Your task to perform on an android device: Show the shopping cart on bestbuy. Add razer blade to the cart on bestbuy, then select checkout. Image 0: 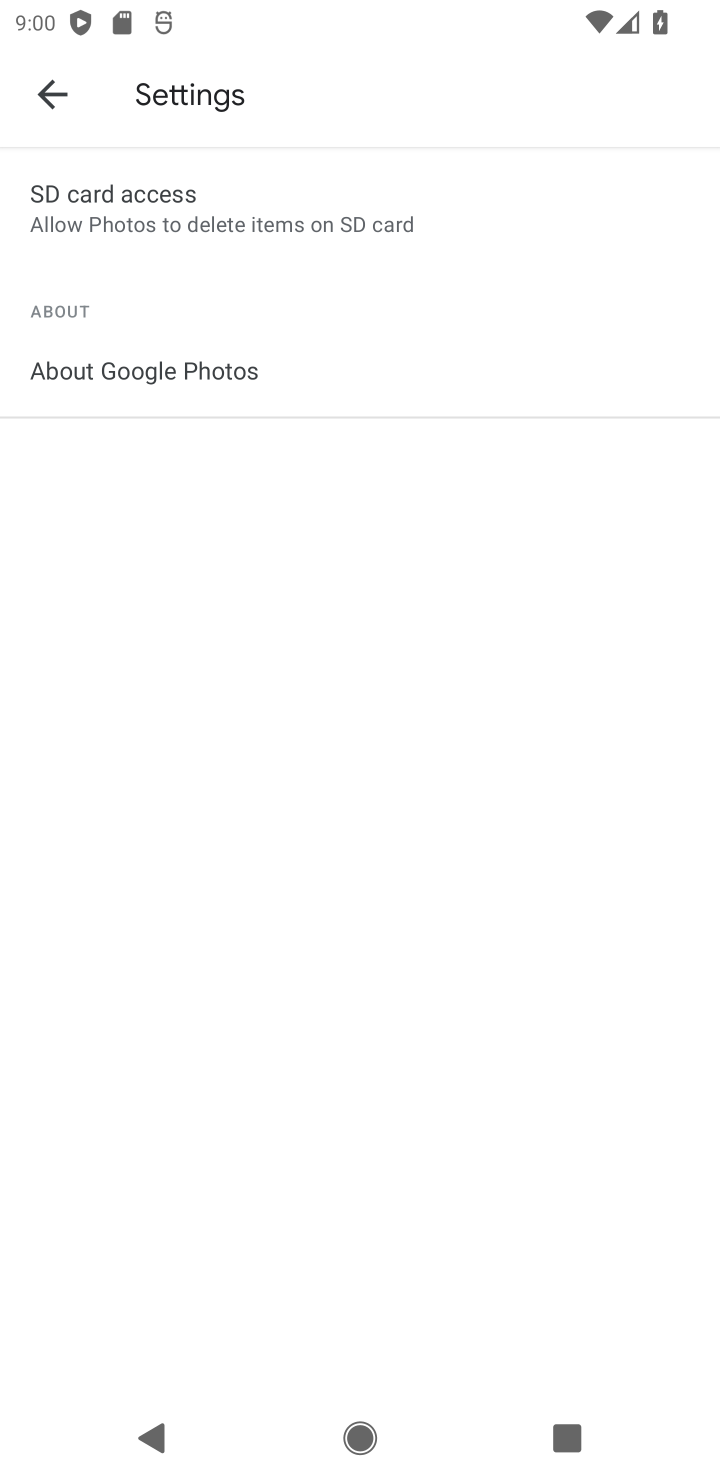
Step 0: press home button
Your task to perform on an android device: Show the shopping cart on bestbuy. Add razer blade to the cart on bestbuy, then select checkout. Image 1: 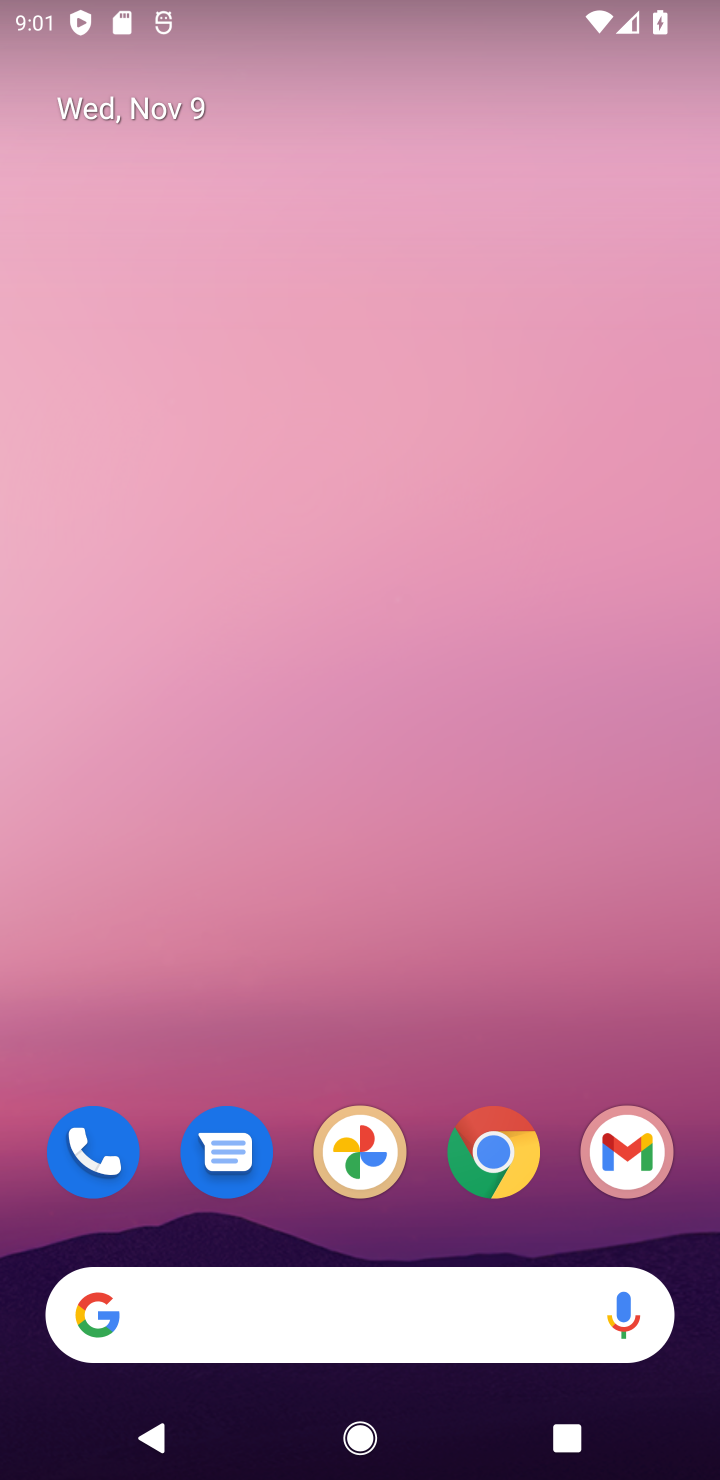
Step 1: click (495, 1151)
Your task to perform on an android device: Show the shopping cart on bestbuy. Add razer blade to the cart on bestbuy, then select checkout. Image 2: 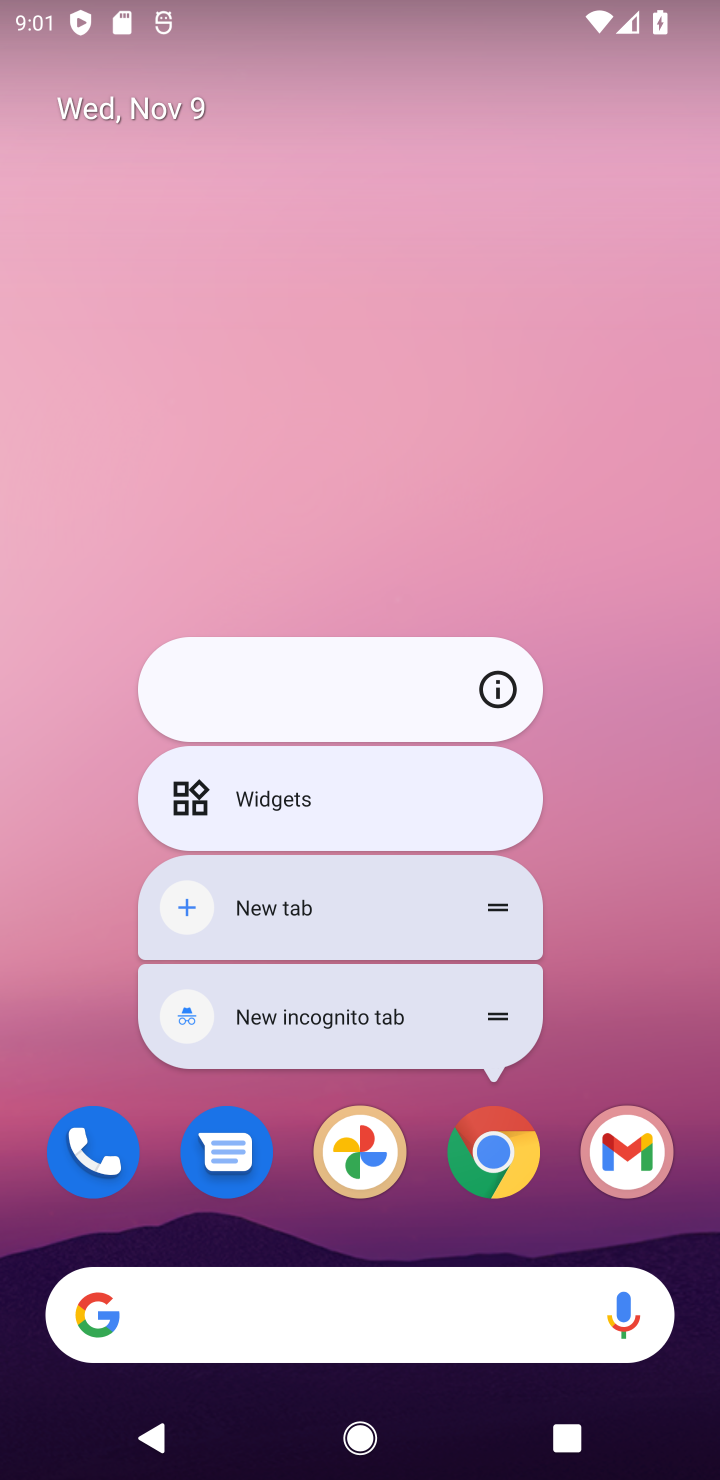
Step 2: click (495, 1156)
Your task to perform on an android device: Show the shopping cart on bestbuy. Add razer blade to the cart on bestbuy, then select checkout. Image 3: 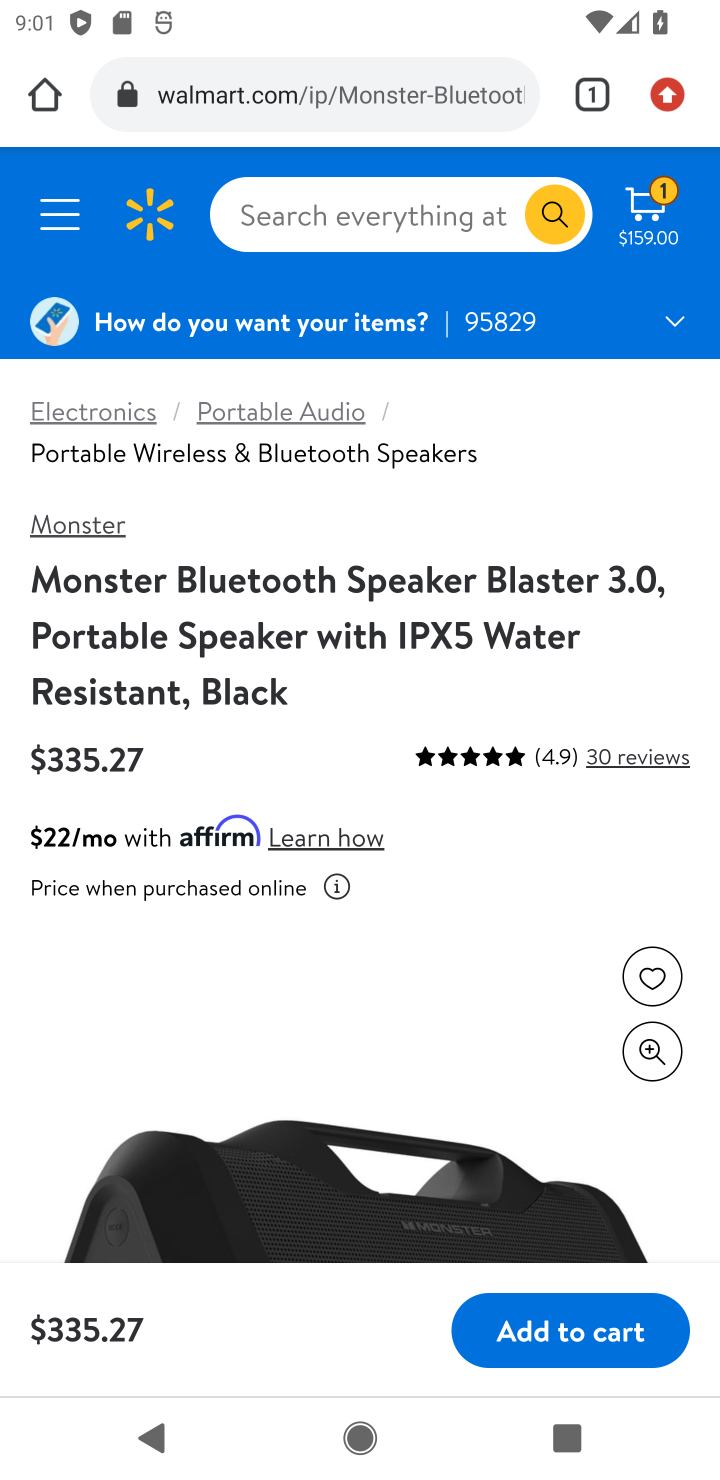
Step 3: click (422, 88)
Your task to perform on an android device: Show the shopping cart on bestbuy. Add razer blade to the cart on bestbuy, then select checkout. Image 4: 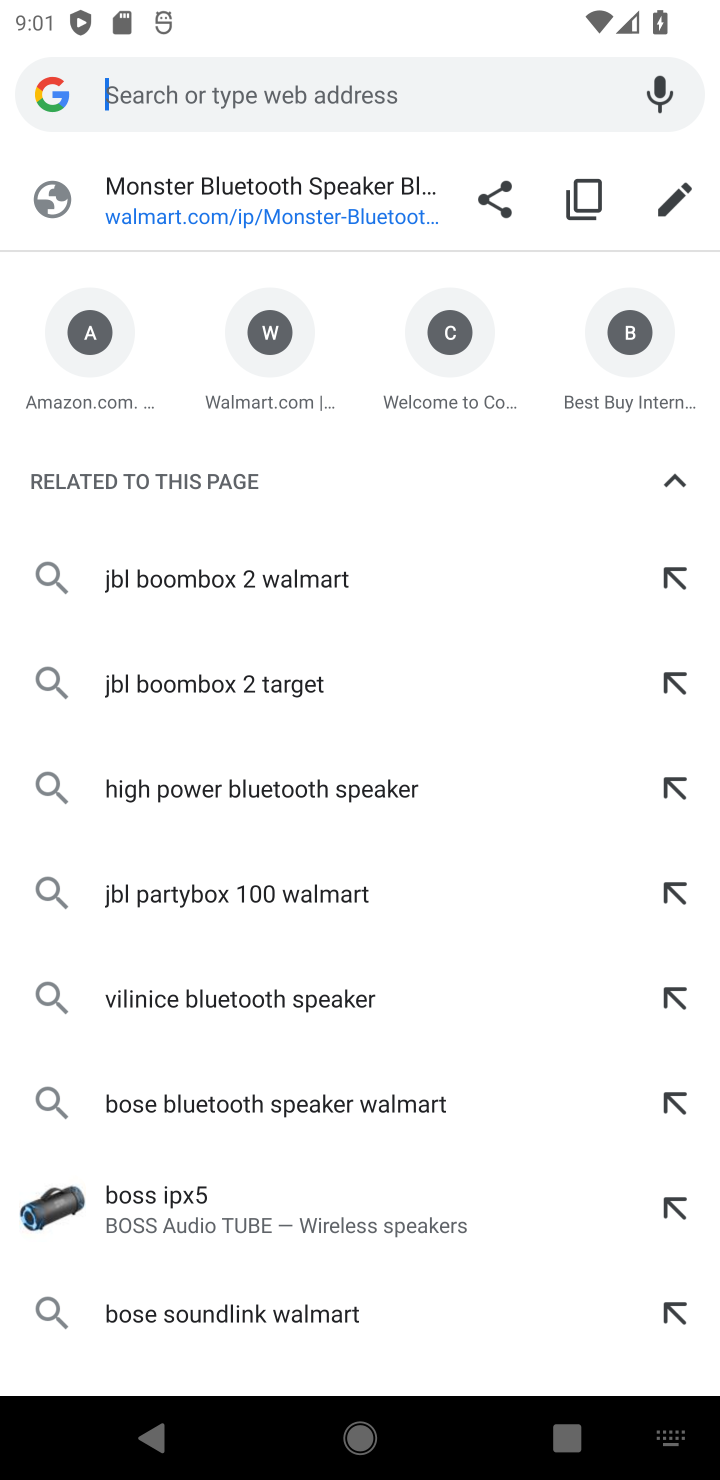
Step 4: click (615, 406)
Your task to perform on an android device: Show the shopping cart on bestbuy. Add razer blade to the cart on bestbuy, then select checkout. Image 5: 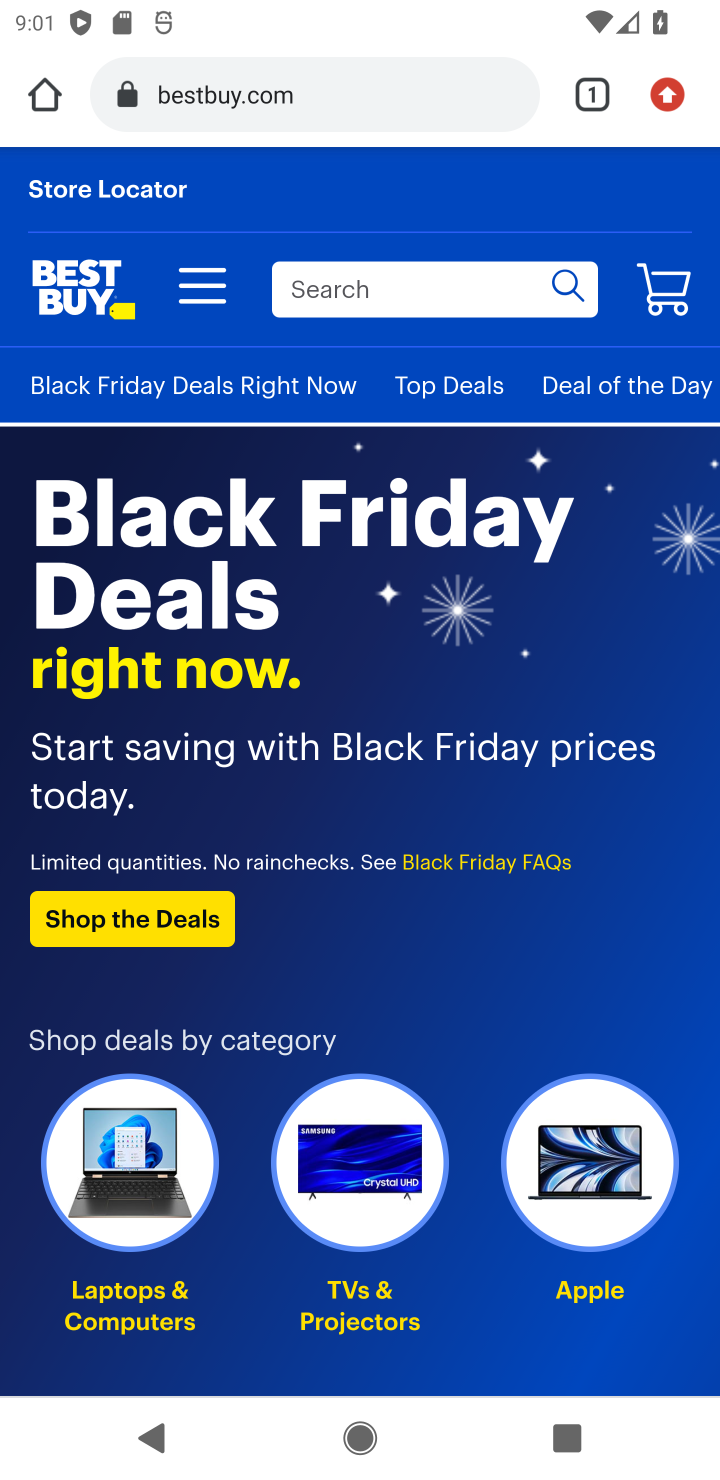
Step 5: click (488, 288)
Your task to perform on an android device: Show the shopping cart on bestbuy. Add razer blade to the cart on bestbuy, then select checkout. Image 6: 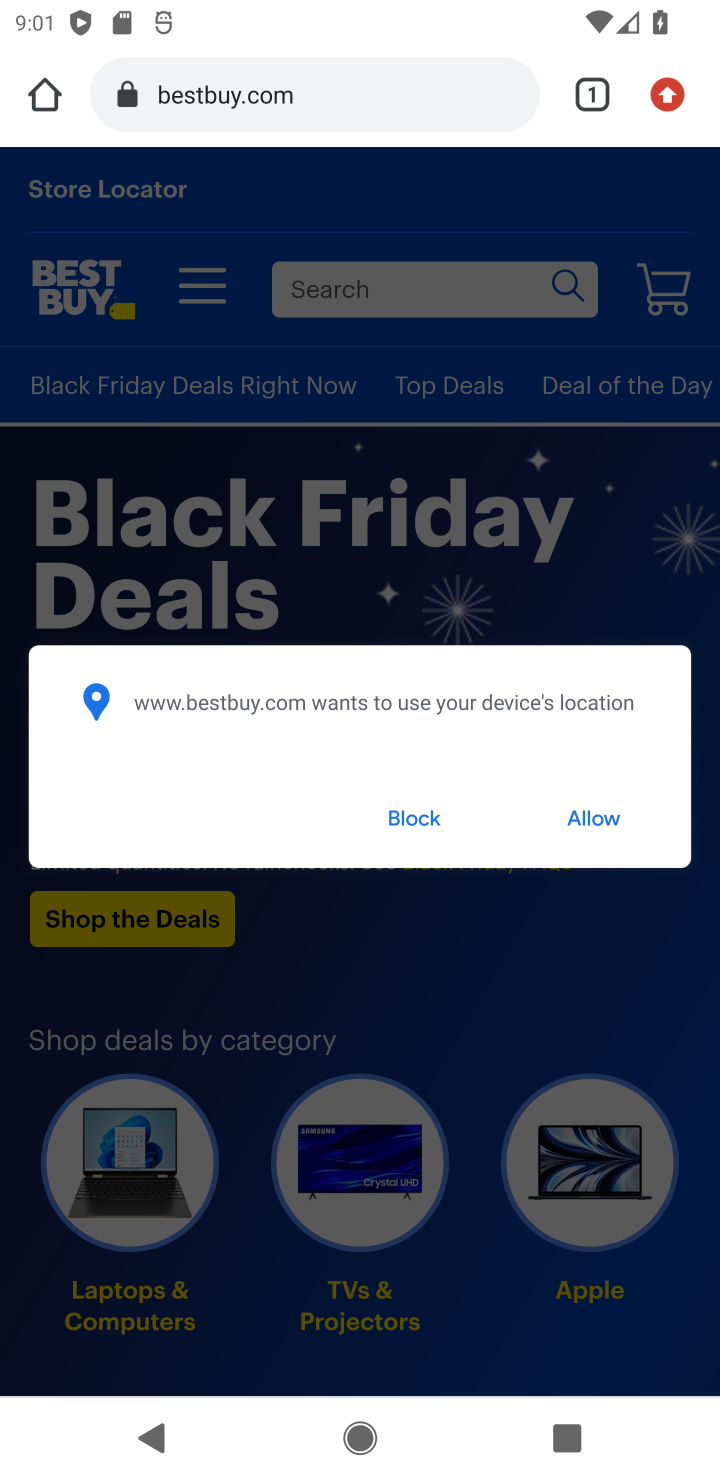
Step 6: click (600, 807)
Your task to perform on an android device: Show the shopping cart on bestbuy. Add razer blade to the cart on bestbuy, then select checkout. Image 7: 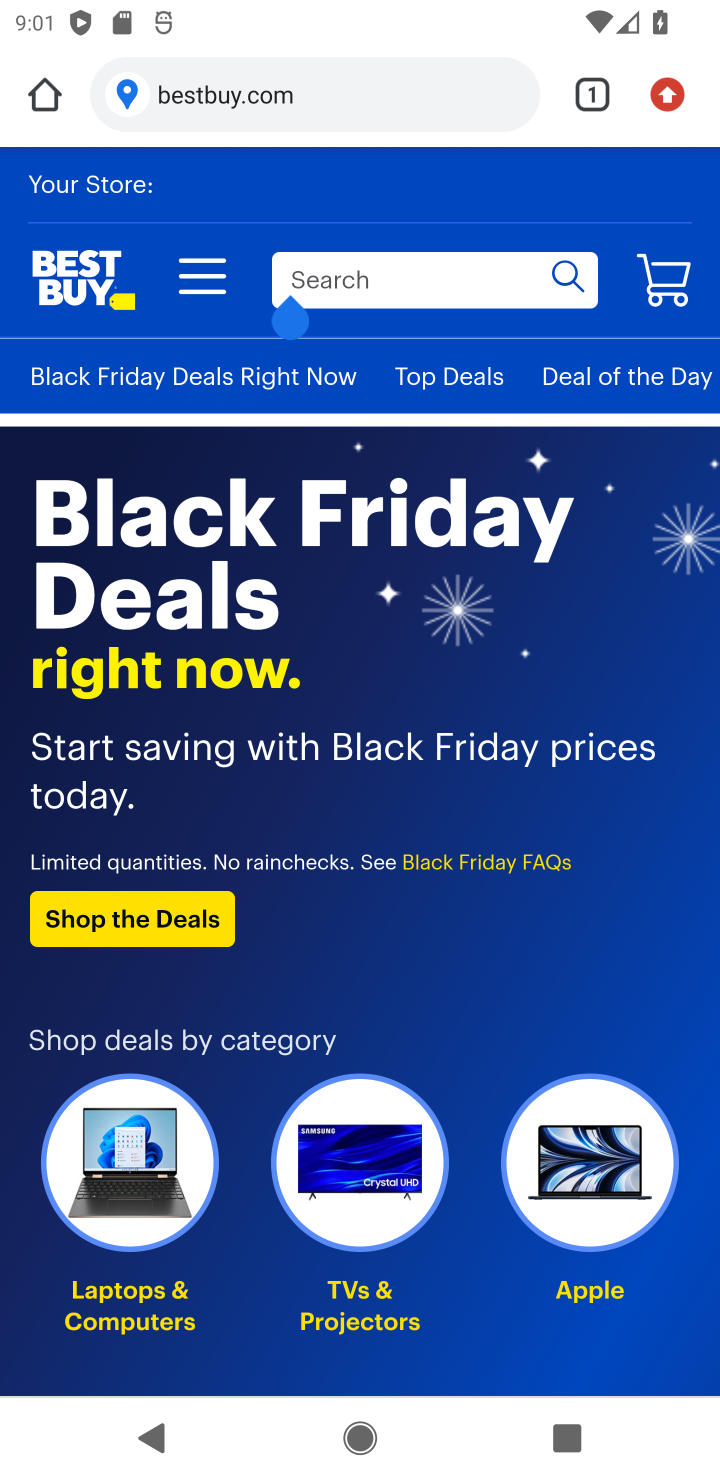
Step 7: click (480, 271)
Your task to perform on an android device: Show the shopping cart on bestbuy. Add razer blade to the cart on bestbuy, then select checkout. Image 8: 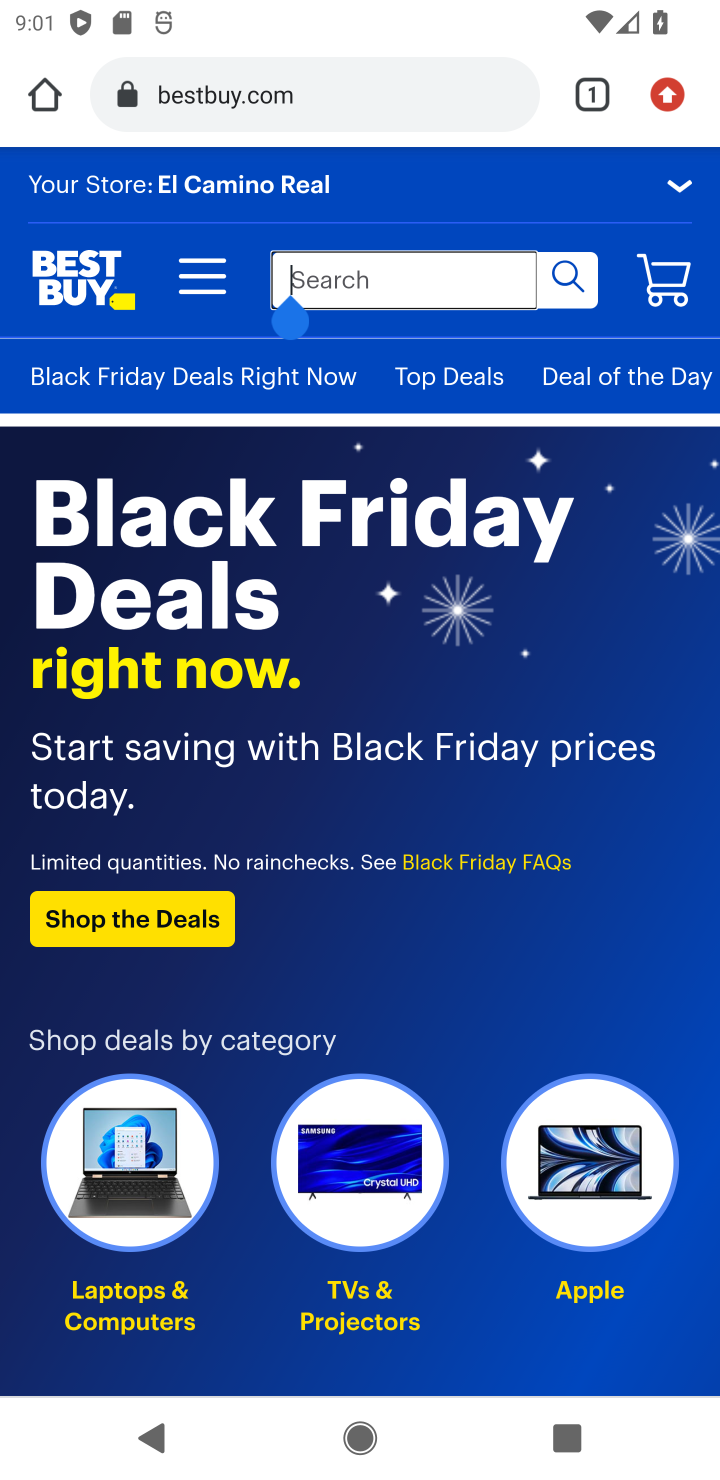
Step 8: type " razer blade"
Your task to perform on an android device: Show the shopping cart on bestbuy. Add razer blade to the cart on bestbuy, then select checkout. Image 9: 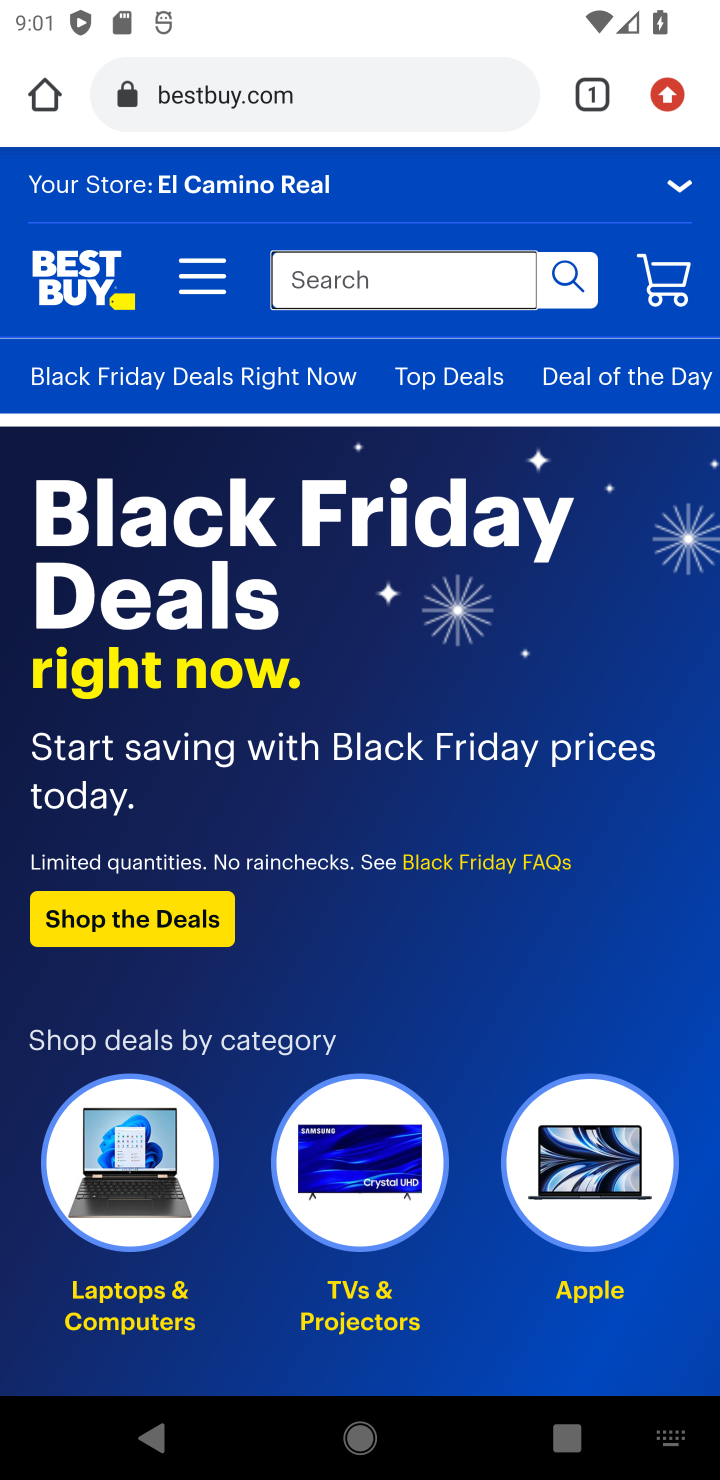
Step 9: press enter
Your task to perform on an android device: Show the shopping cart on bestbuy. Add razer blade to the cart on bestbuy, then select checkout. Image 10: 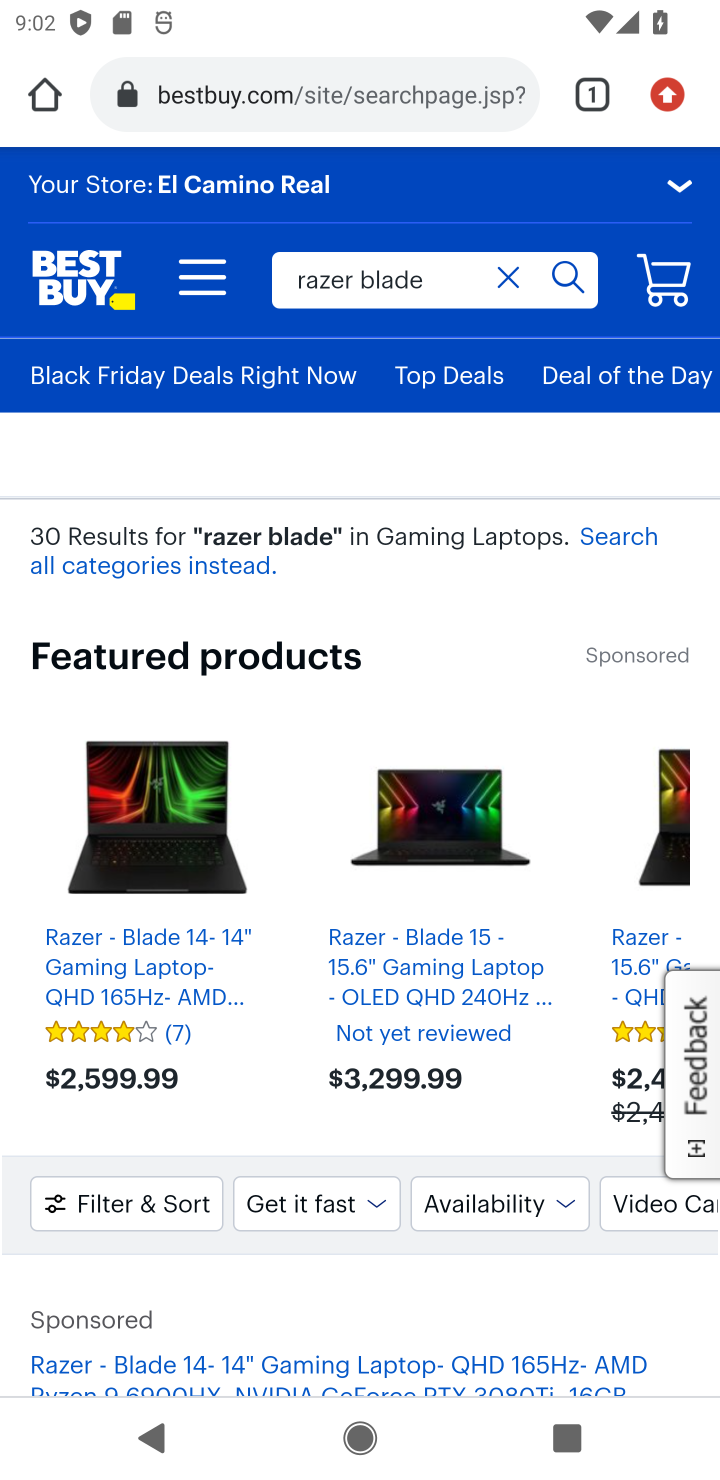
Step 10: drag from (318, 1188) to (565, 338)
Your task to perform on an android device: Show the shopping cart on bestbuy. Add razer blade to the cart on bestbuy, then select checkout. Image 11: 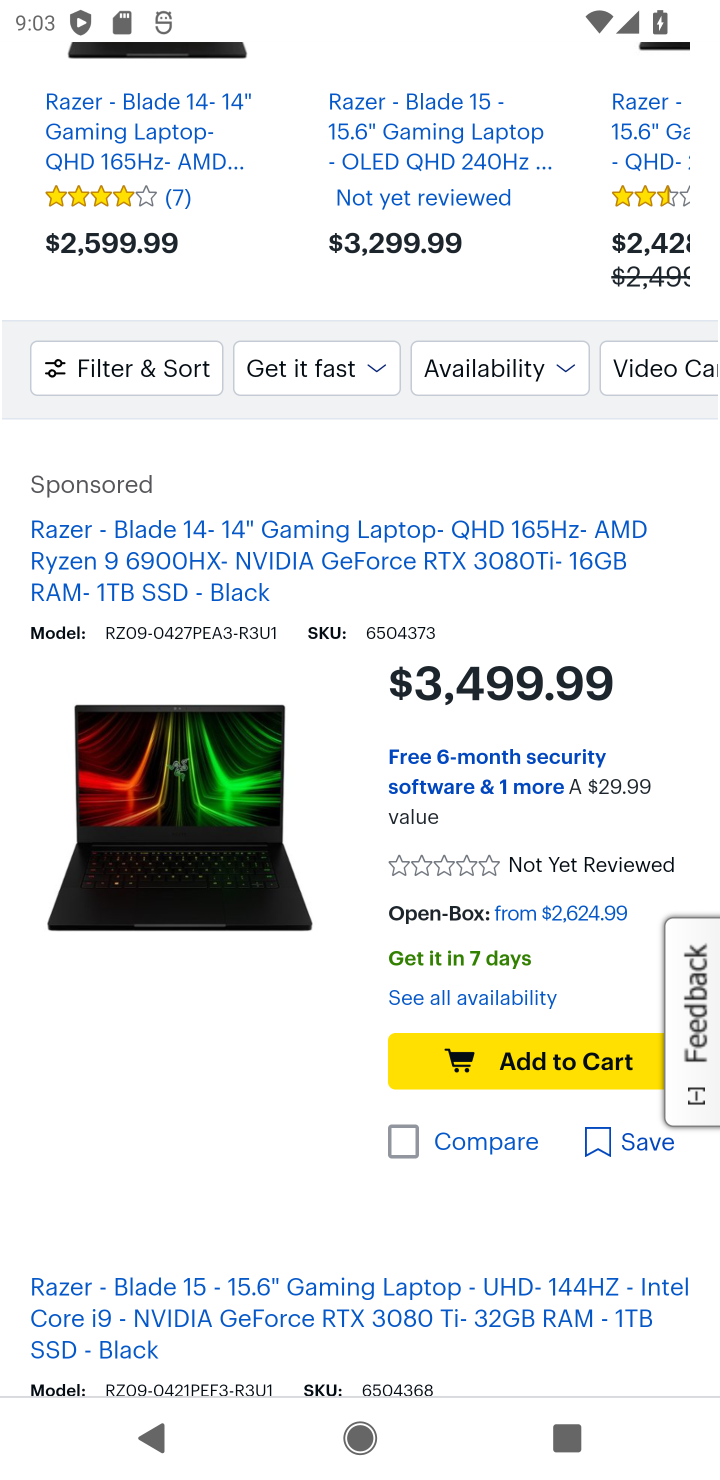
Step 11: click (544, 1055)
Your task to perform on an android device: Show the shopping cart on bestbuy. Add razer blade to the cart on bestbuy, then select checkout. Image 12: 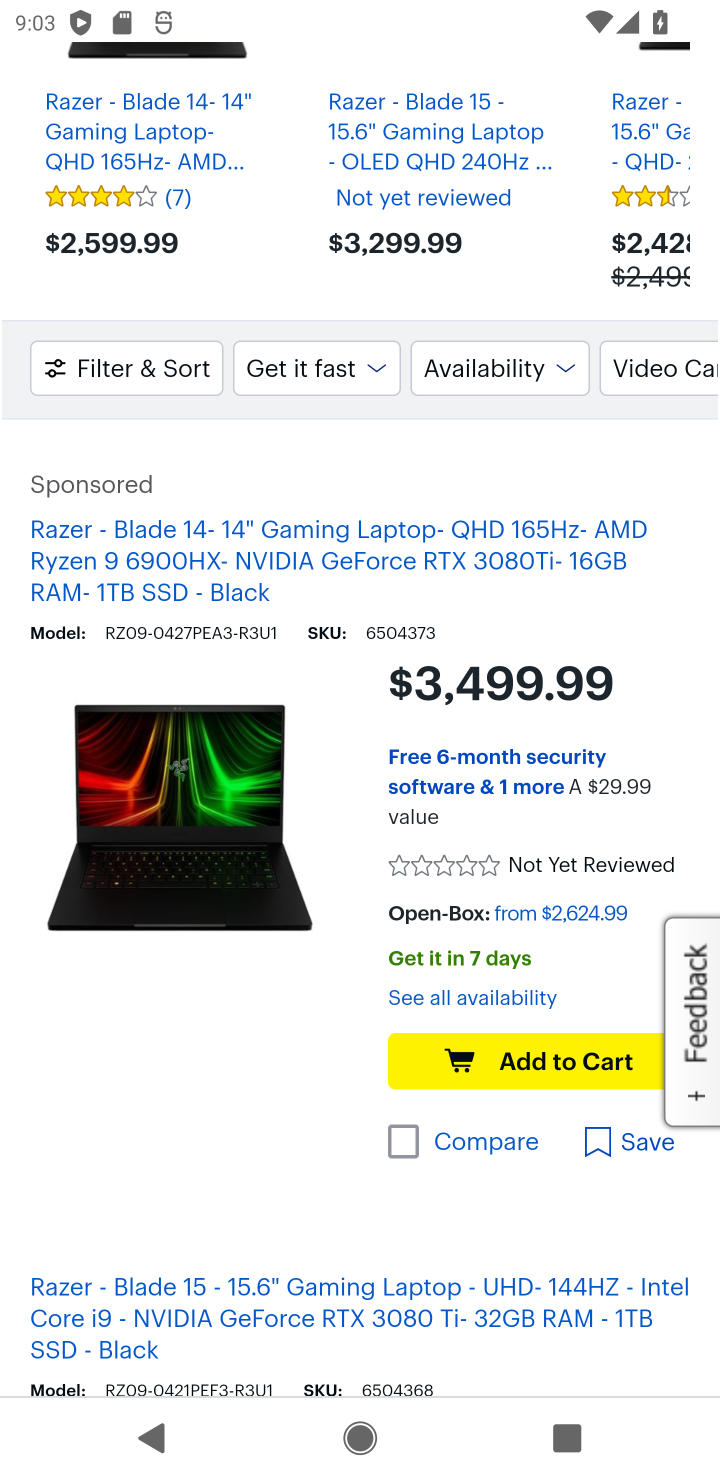
Step 12: click (549, 1066)
Your task to perform on an android device: Show the shopping cart on bestbuy. Add razer blade to the cart on bestbuy, then select checkout. Image 13: 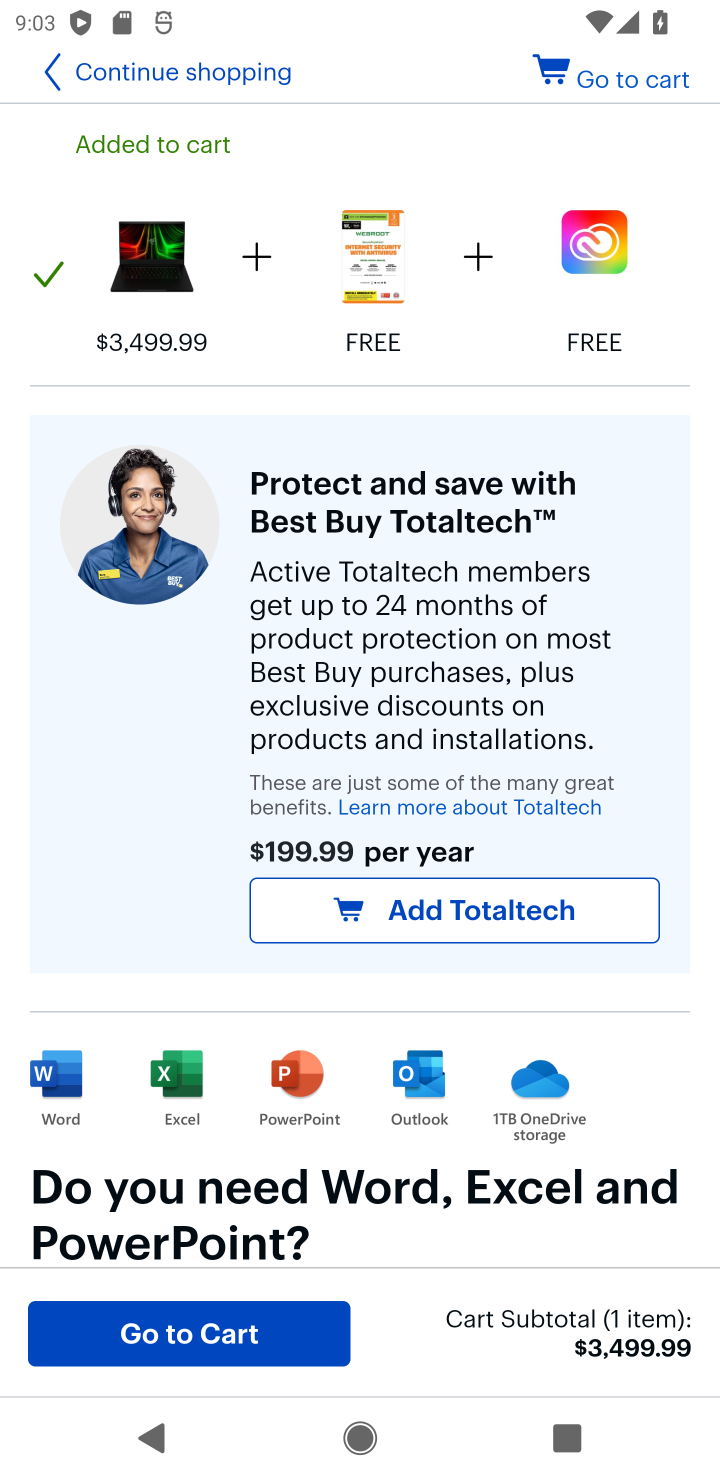
Step 13: click (651, 66)
Your task to perform on an android device: Show the shopping cart on bestbuy. Add razer blade to the cart on bestbuy, then select checkout. Image 14: 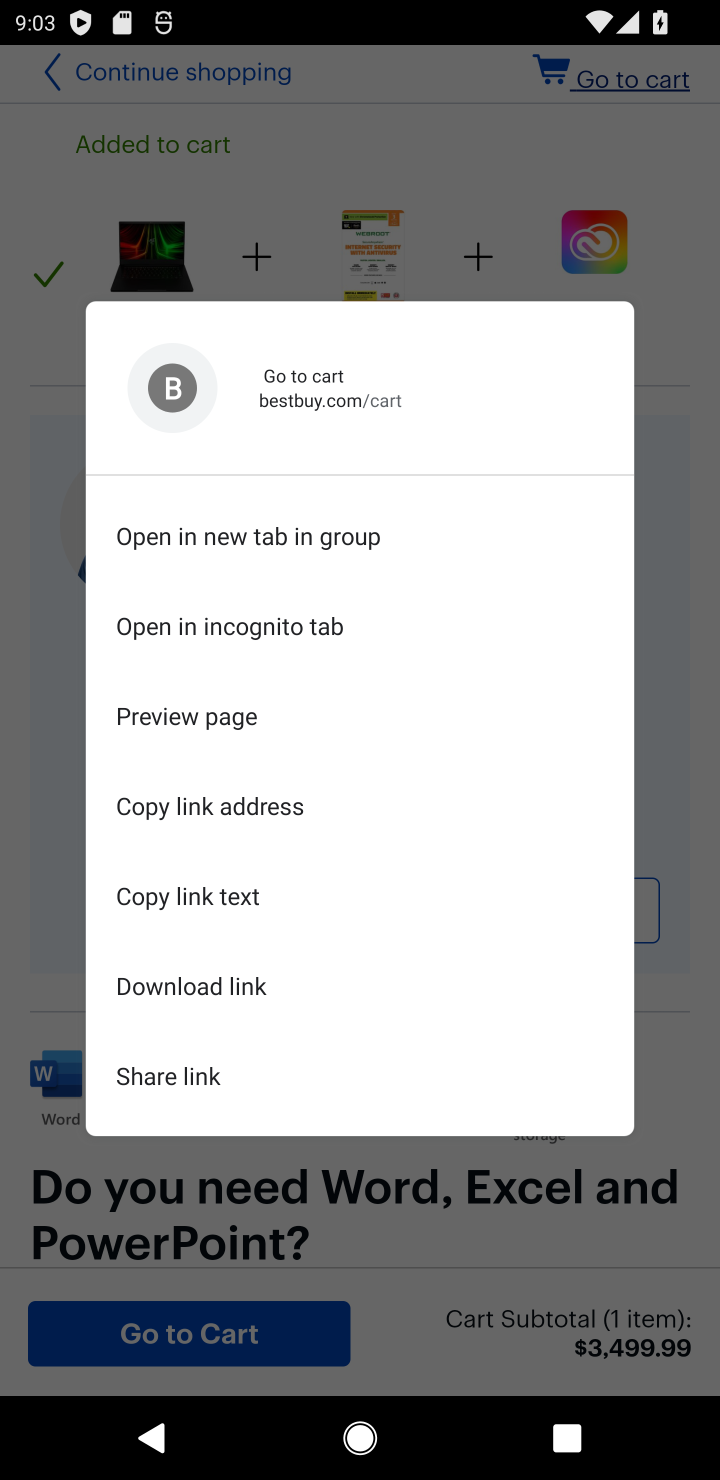
Step 14: click (640, 84)
Your task to perform on an android device: Show the shopping cart on bestbuy. Add razer blade to the cart on bestbuy, then select checkout. Image 15: 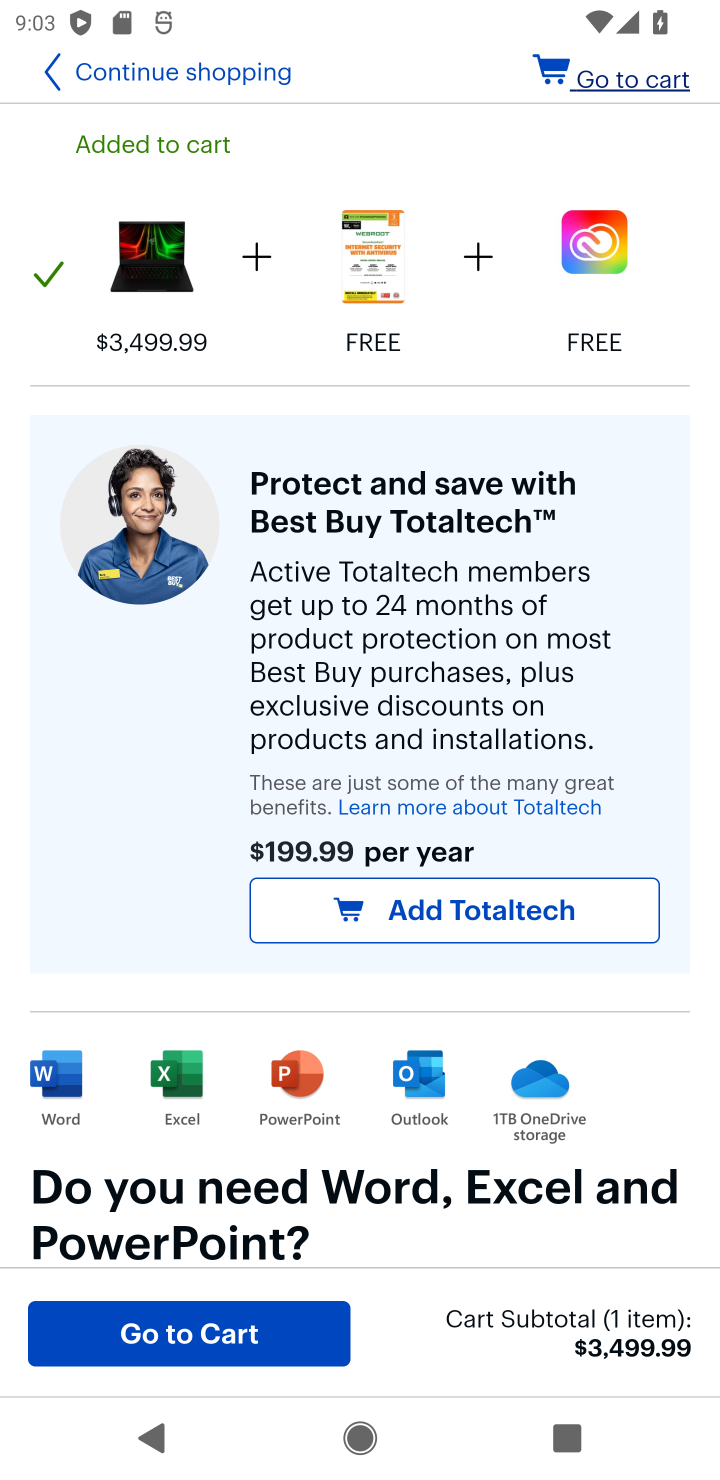
Step 15: click (634, 73)
Your task to perform on an android device: Show the shopping cart on bestbuy. Add razer blade to the cart on bestbuy, then select checkout. Image 16: 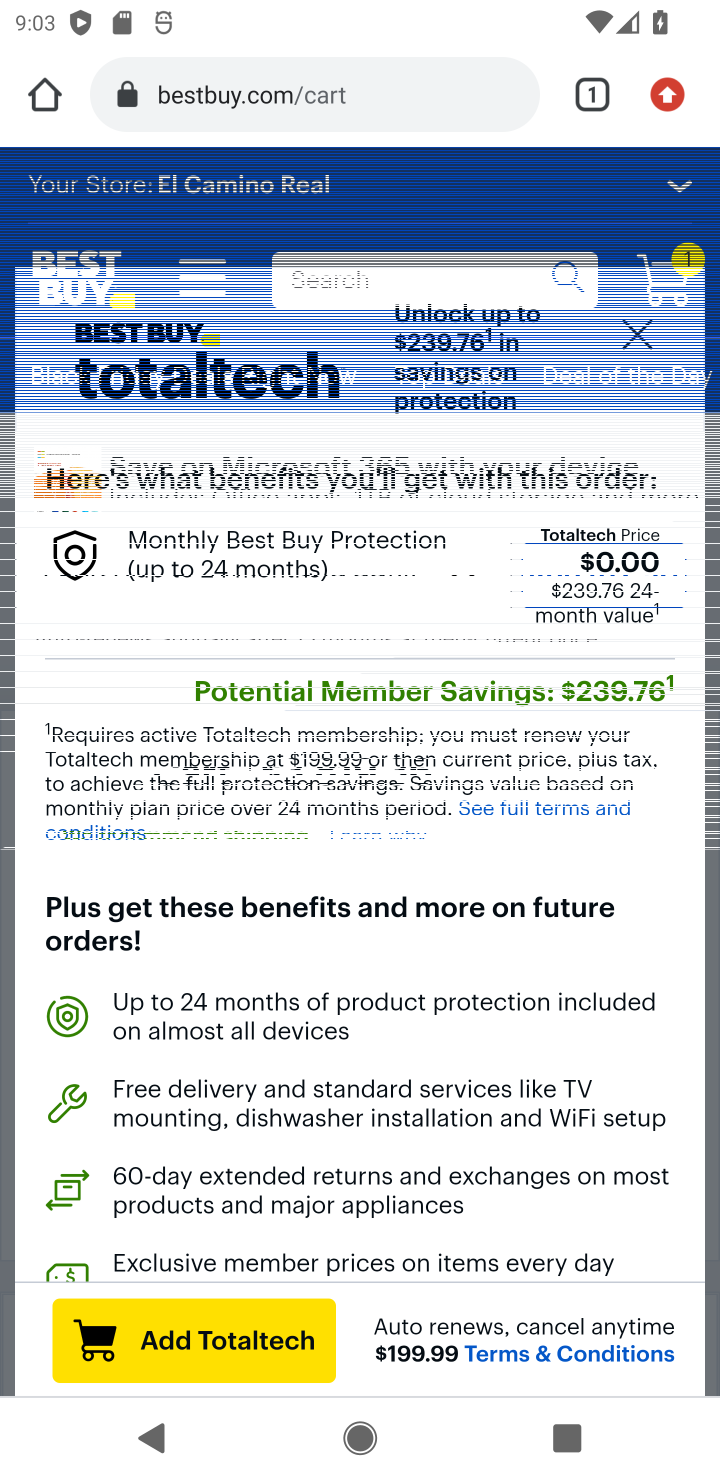
Step 16: click (632, 333)
Your task to perform on an android device: Show the shopping cart on bestbuy. Add razer blade to the cart on bestbuy, then select checkout. Image 17: 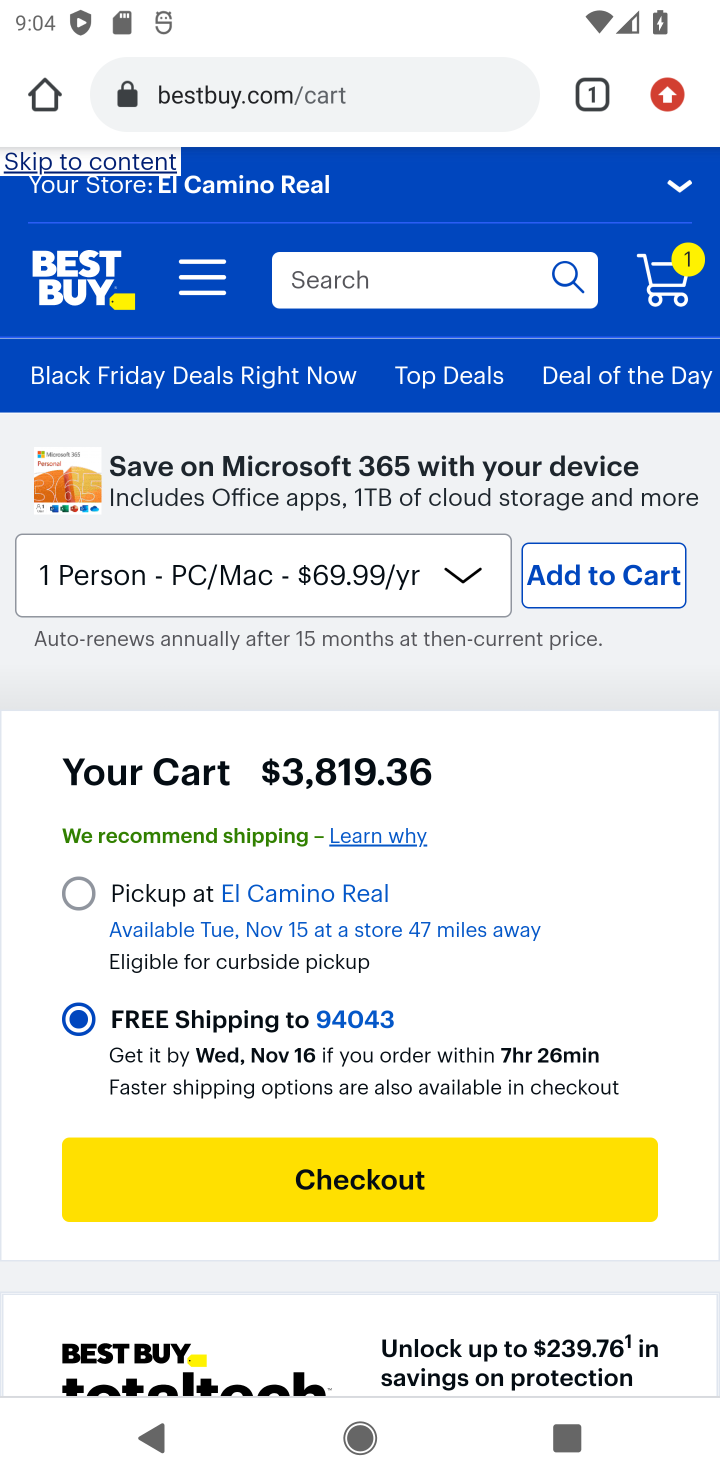
Step 17: click (400, 281)
Your task to perform on an android device: Show the shopping cart on bestbuy. Add razer blade to the cart on bestbuy, then select checkout. Image 18: 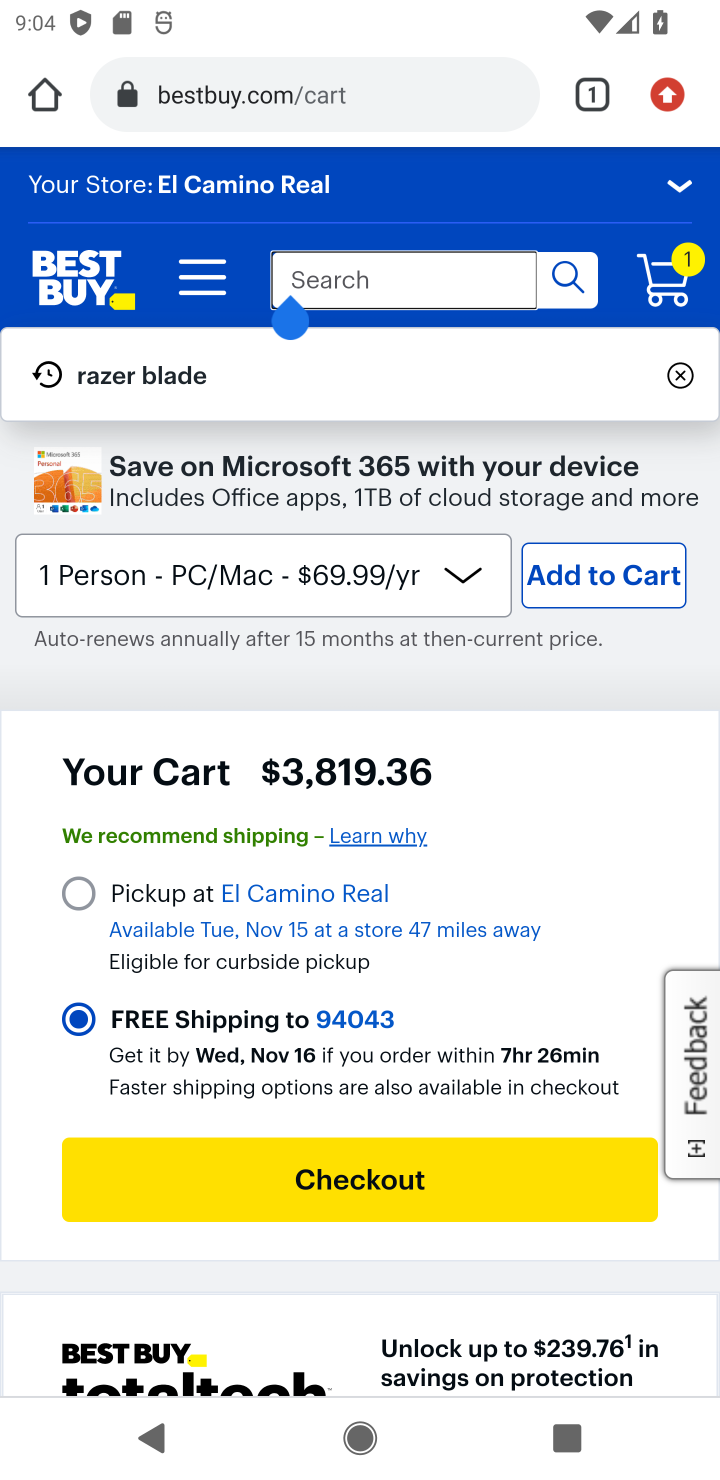
Step 18: click (338, 1158)
Your task to perform on an android device: Show the shopping cart on bestbuy. Add razer blade to the cart on bestbuy, then select checkout. Image 19: 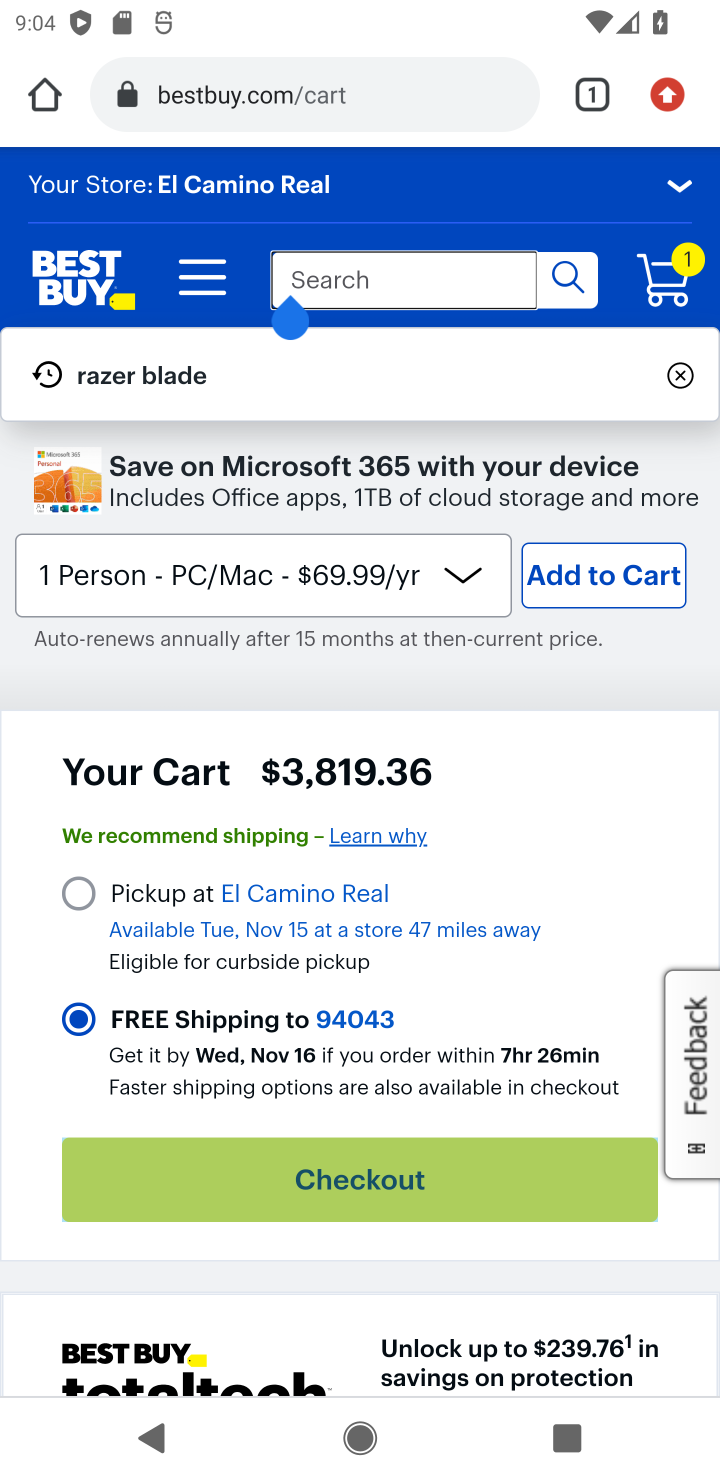
Step 19: task complete